Your task to perform on an android device: open chrome privacy settings Image 0: 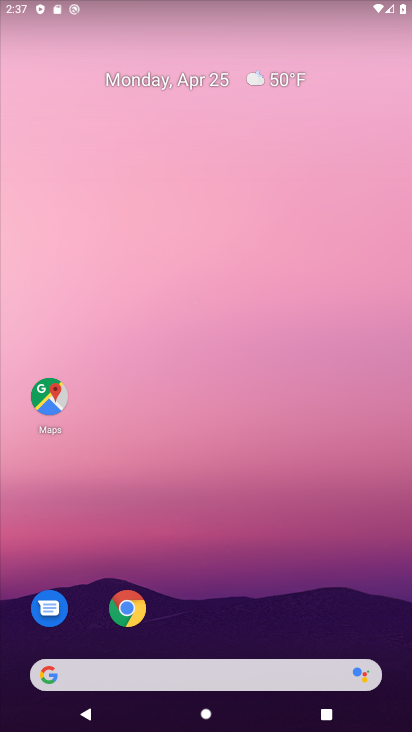
Step 0: click (139, 612)
Your task to perform on an android device: open chrome privacy settings Image 1: 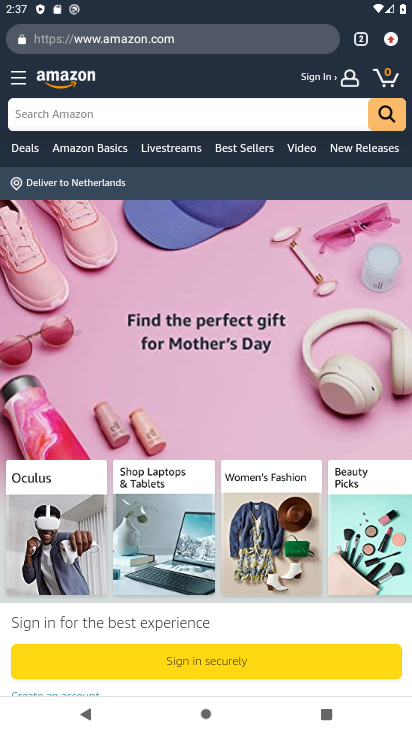
Step 1: drag from (392, 43) to (257, 519)
Your task to perform on an android device: open chrome privacy settings Image 2: 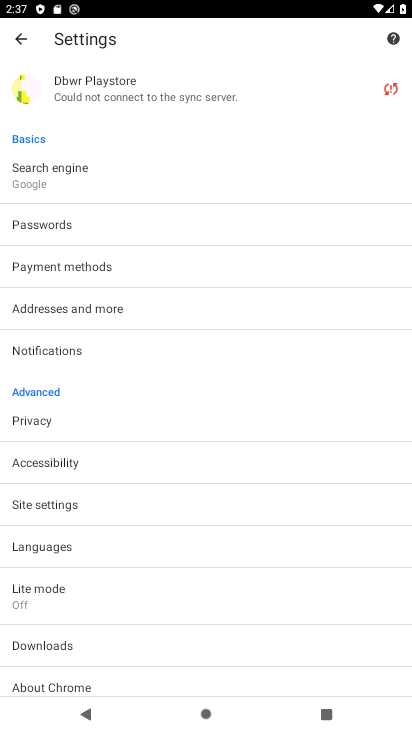
Step 2: click (58, 427)
Your task to perform on an android device: open chrome privacy settings Image 3: 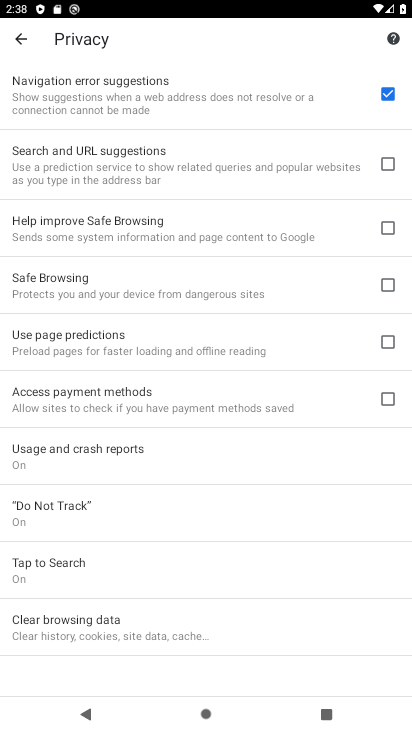
Step 3: task complete